Your task to perform on an android device: Open calendar and show me the first week of next month Image 0: 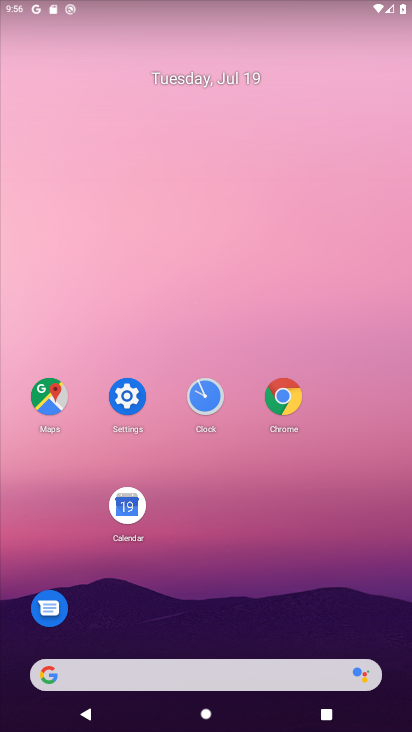
Step 0: click (120, 510)
Your task to perform on an android device: Open calendar and show me the first week of next month Image 1: 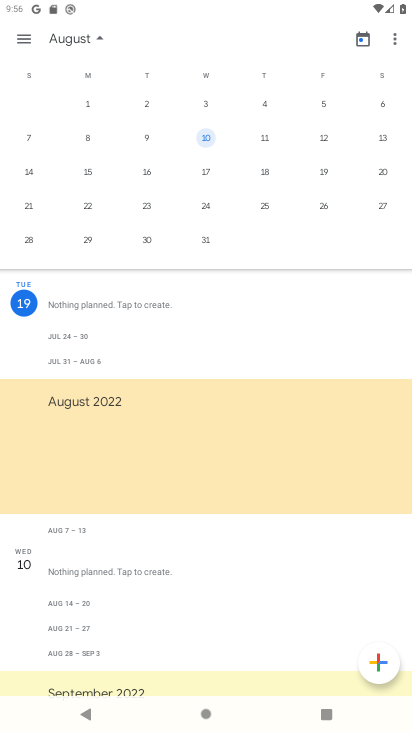
Step 1: click (199, 103)
Your task to perform on an android device: Open calendar and show me the first week of next month Image 2: 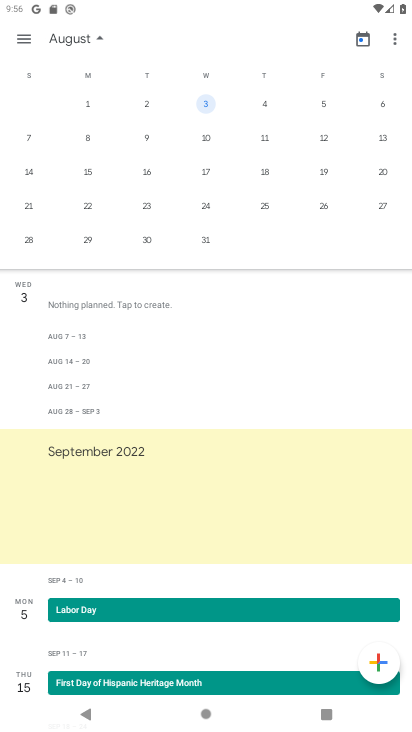
Step 2: task complete